Your task to perform on an android device: Go to Maps Image 0: 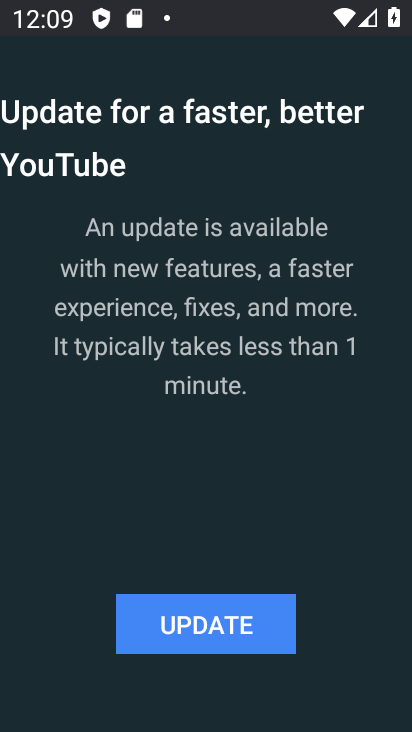
Step 0: press home button
Your task to perform on an android device: Go to Maps Image 1: 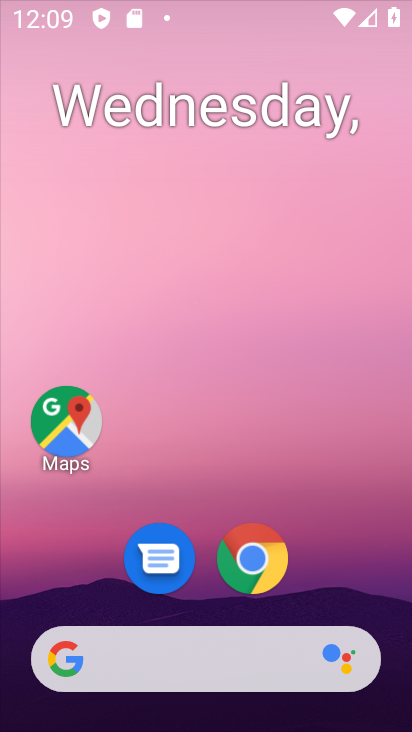
Step 1: drag from (239, 501) to (285, 96)
Your task to perform on an android device: Go to Maps Image 2: 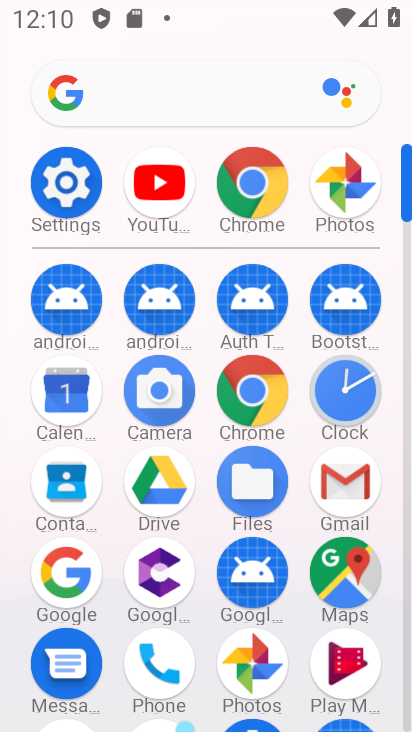
Step 2: click (361, 598)
Your task to perform on an android device: Go to Maps Image 3: 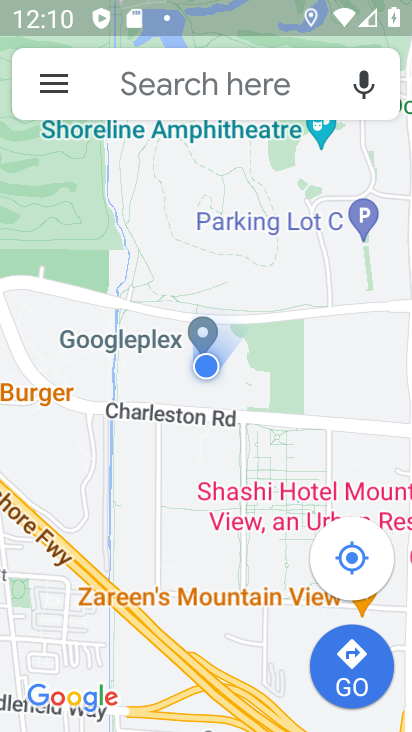
Step 3: task complete